Your task to perform on an android device: Open CNN.com Image 0: 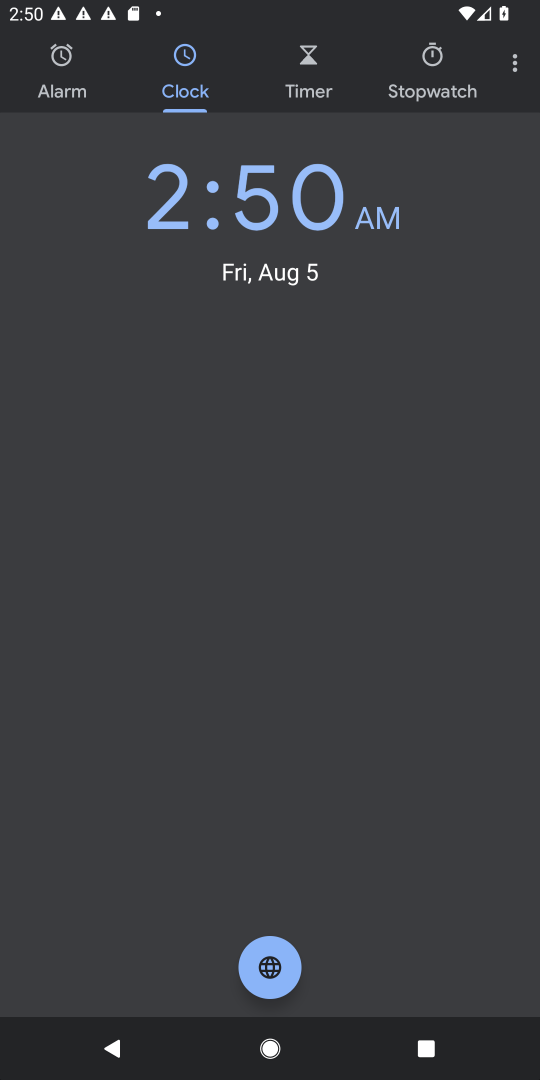
Step 0: press home button
Your task to perform on an android device: Open CNN.com Image 1: 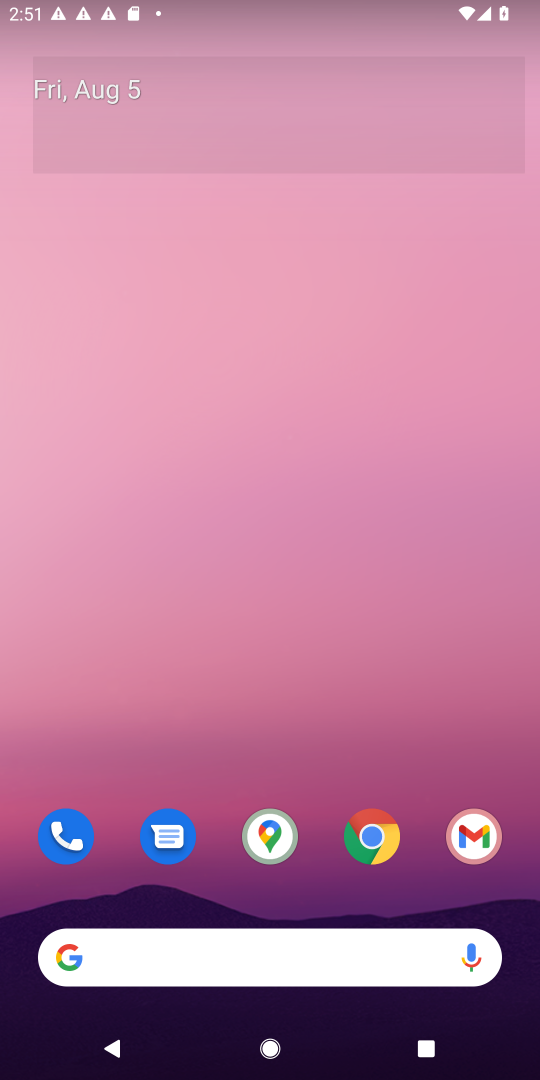
Step 1: drag from (262, 870) to (74, 960)
Your task to perform on an android device: Open CNN.com Image 2: 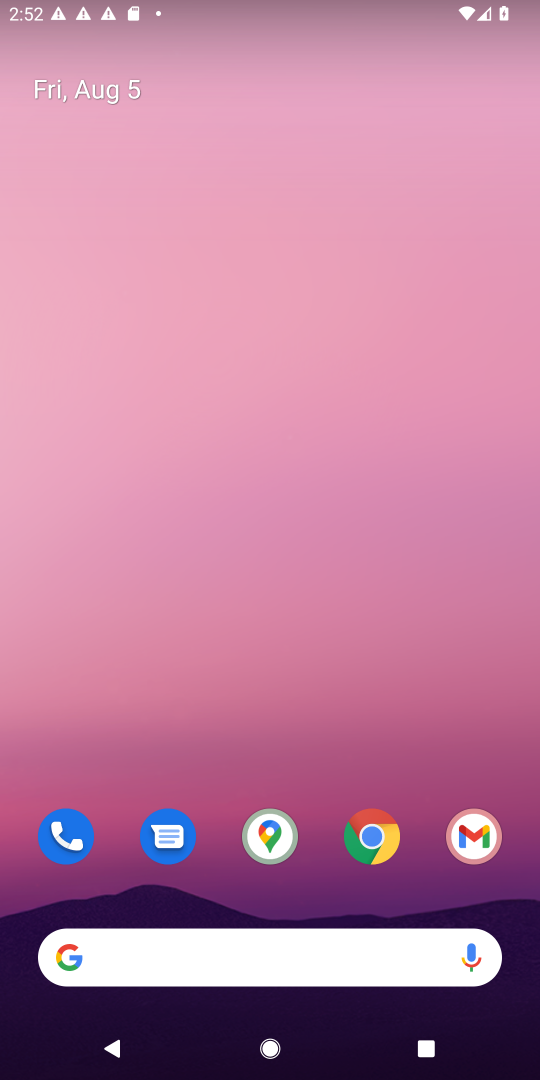
Step 2: drag from (250, 850) to (172, 14)
Your task to perform on an android device: Open CNN.com Image 3: 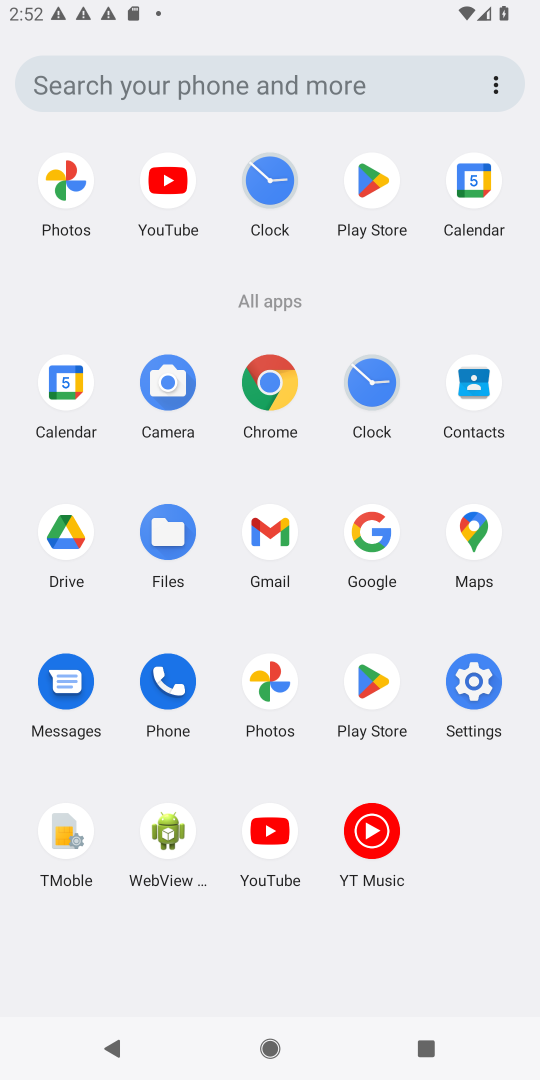
Step 3: click (287, 396)
Your task to perform on an android device: Open CNN.com Image 4: 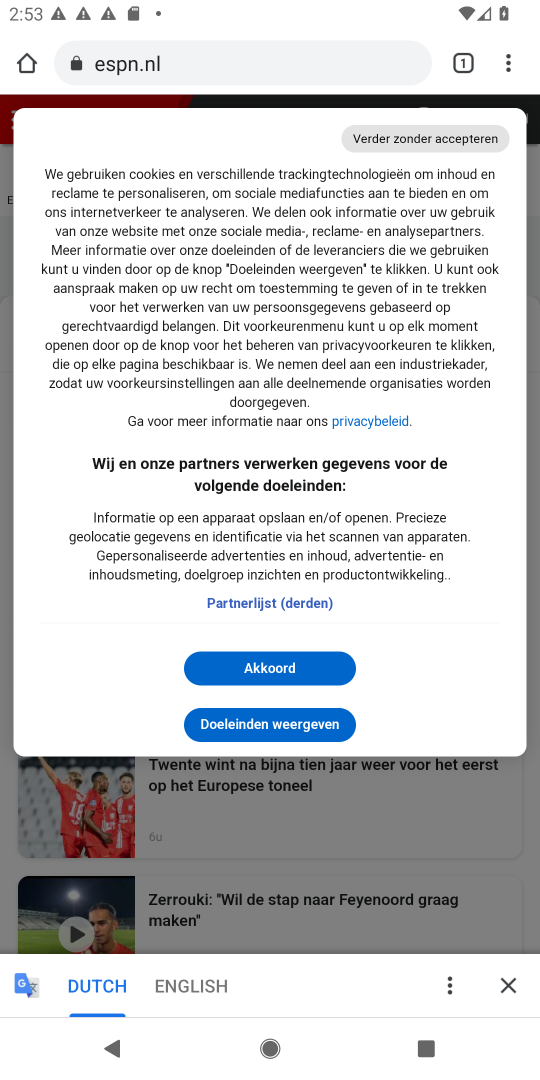
Step 4: click (176, 49)
Your task to perform on an android device: Open CNN.com Image 5: 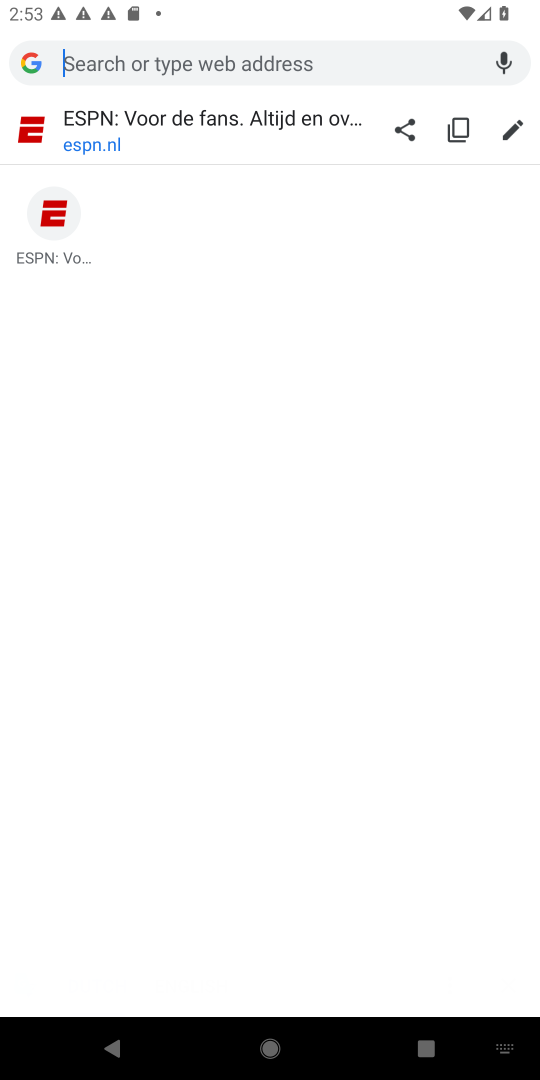
Step 5: type "CNN.com"
Your task to perform on an android device: Open CNN.com Image 6: 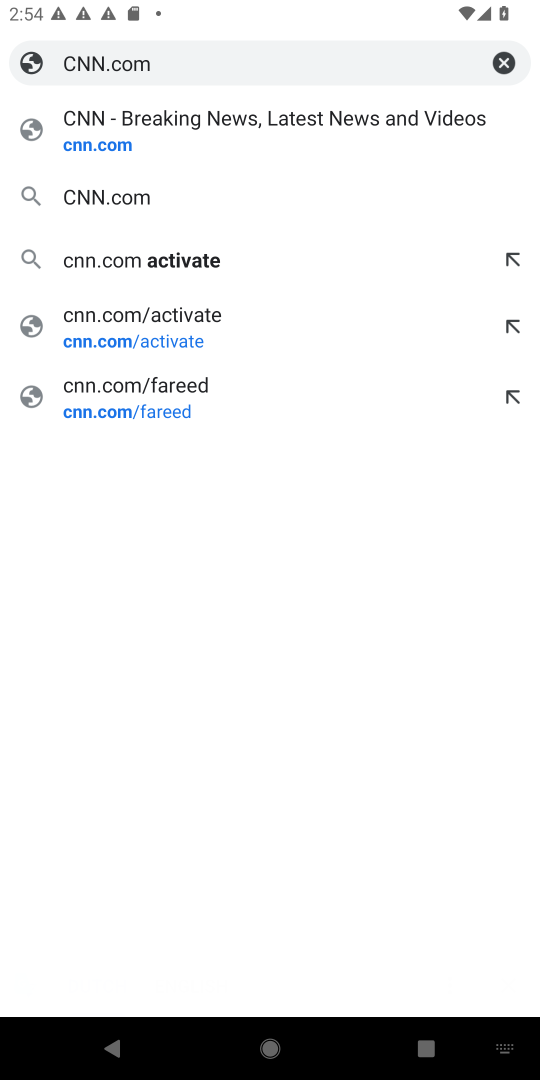
Step 6: click (98, 155)
Your task to perform on an android device: Open CNN.com Image 7: 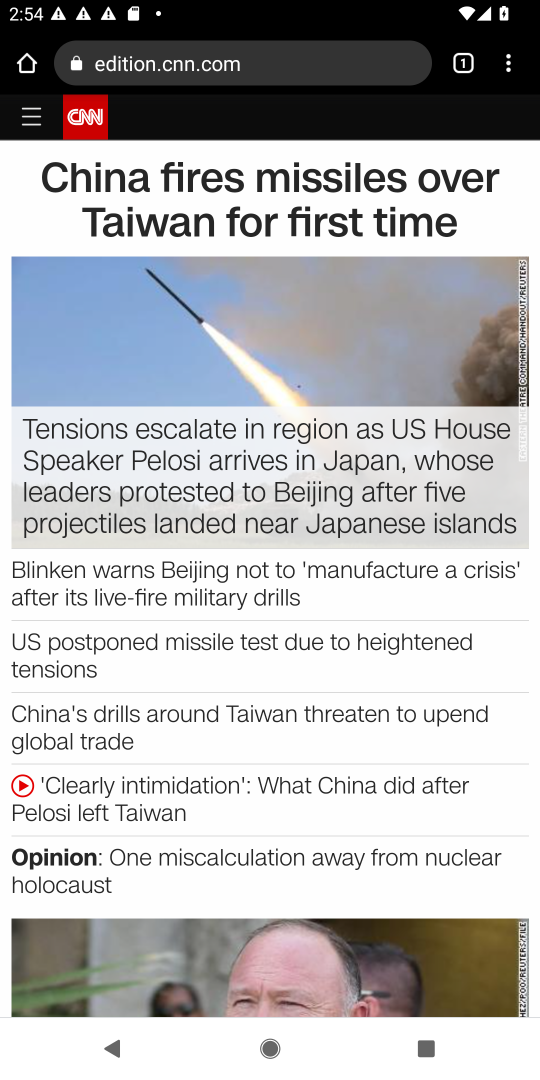
Step 7: task complete